Your task to perform on an android device: Open calendar and show me the second week of next month Image 0: 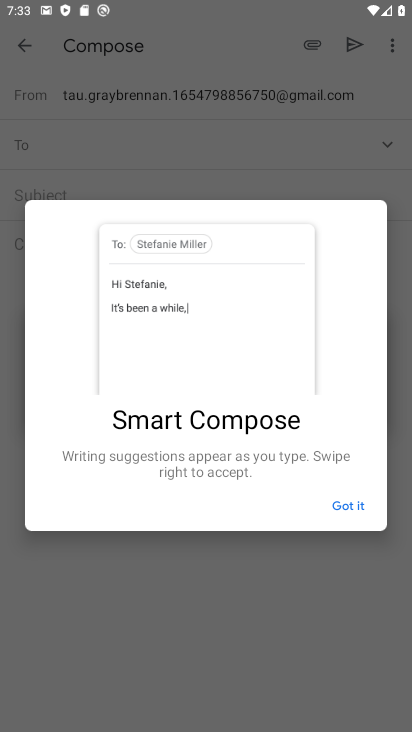
Step 0: press home button
Your task to perform on an android device: Open calendar and show me the second week of next month Image 1: 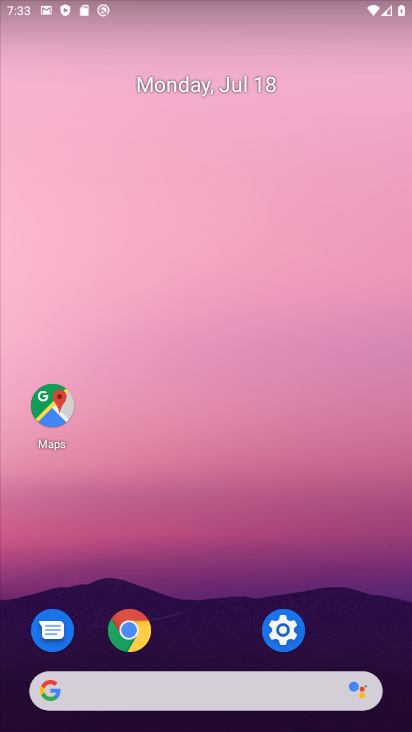
Step 1: drag from (236, 668) to (187, 238)
Your task to perform on an android device: Open calendar and show me the second week of next month Image 2: 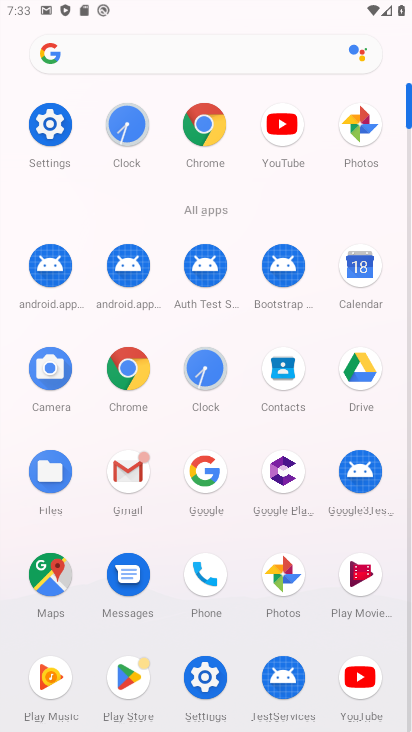
Step 2: click (363, 278)
Your task to perform on an android device: Open calendar and show me the second week of next month Image 3: 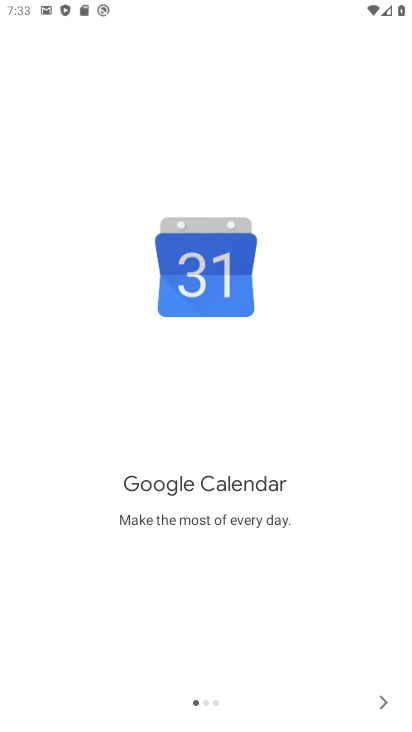
Step 3: click (385, 705)
Your task to perform on an android device: Open calendar and show me the second week of next month Image 4: 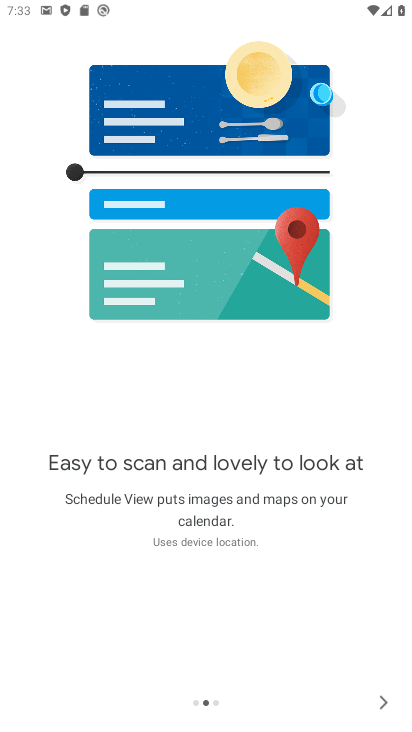
Step 4: click (385, 705)
Your task to perform on an android device: Open calendar and show me the second week of next month Image 5: 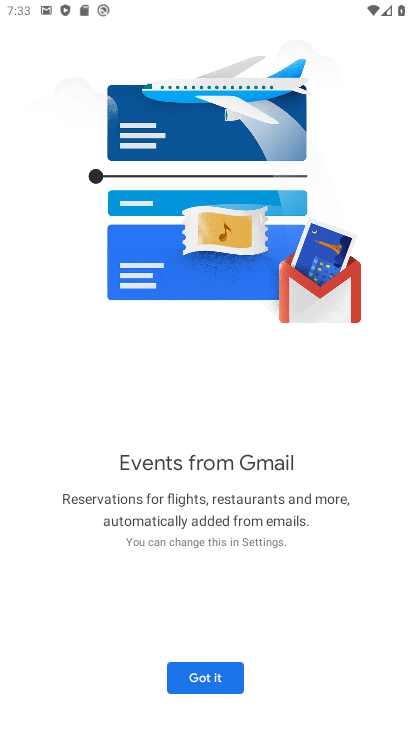
Step 5: click (223, 678)
Your task to perform on an android device: Open calendar and show me the second week of next month Image 6: 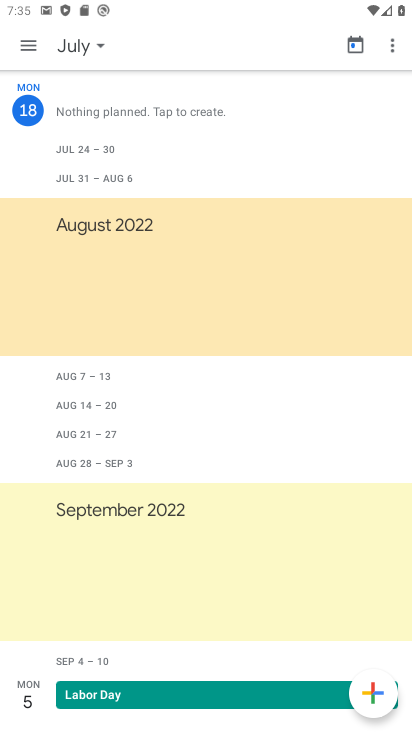
Step 6: click (17, 50)
Your task to perform on an android device: Open calendar and show me the second week of next month Image 7: 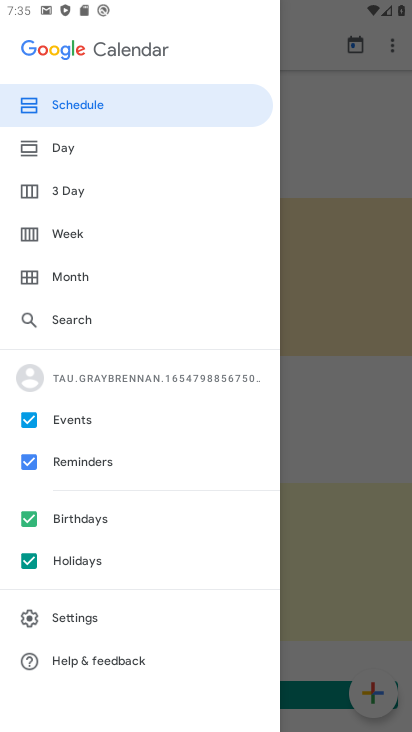
Step 7: click (63, 278)
Your task to perform on an android device: Open calendar and show me the second week of next month Image 8: 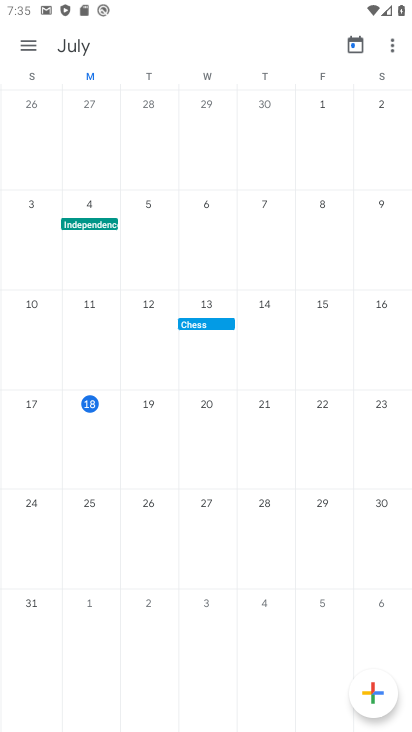
Step 8: drag from (393, 439) to (4, 422)
Your task to perform on an android device: Open calendar and show me the second week of next month Image 9: 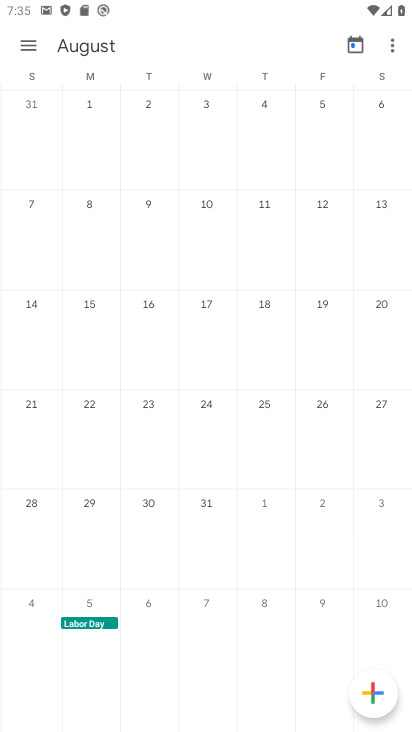
Step 9: click (87, 217)
Your task to perform on an android device: Open calendar and show me the second week of next month Image 10: 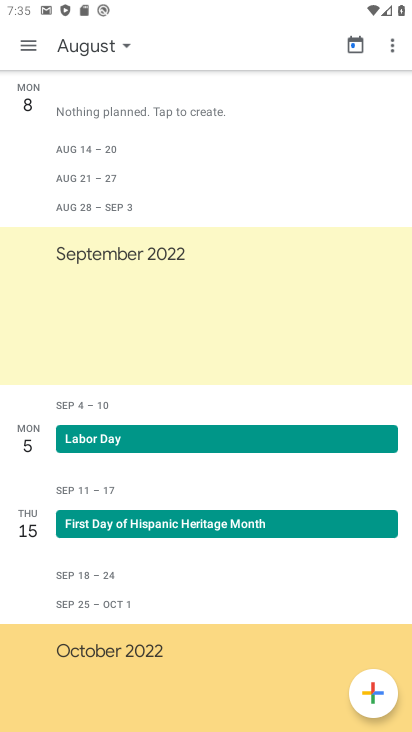
Step 10: task complete